Your task to perform on an android device: toggle location history Image 0: 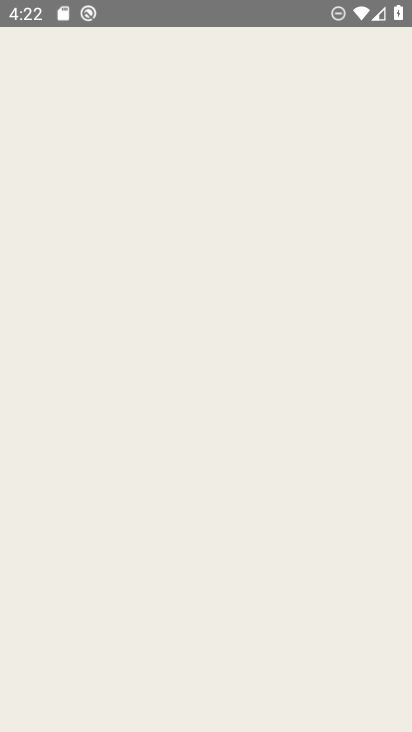
Step 0: click (55, 371)
Your task to perform on an android device: toggle location history Image 1: 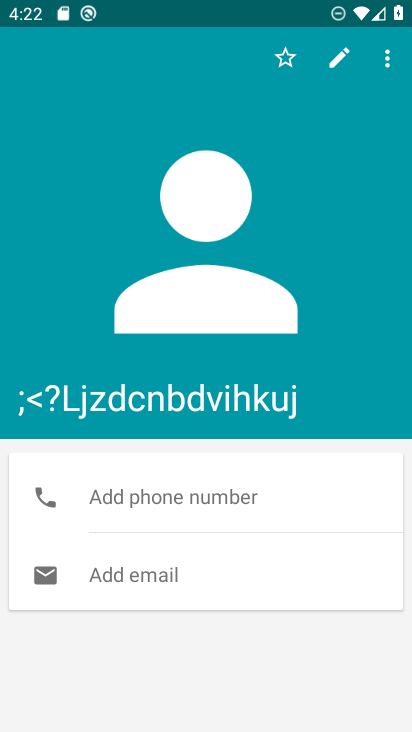
Step 1: press back button
Your task to perform on an android device: toggle location history Image 2: 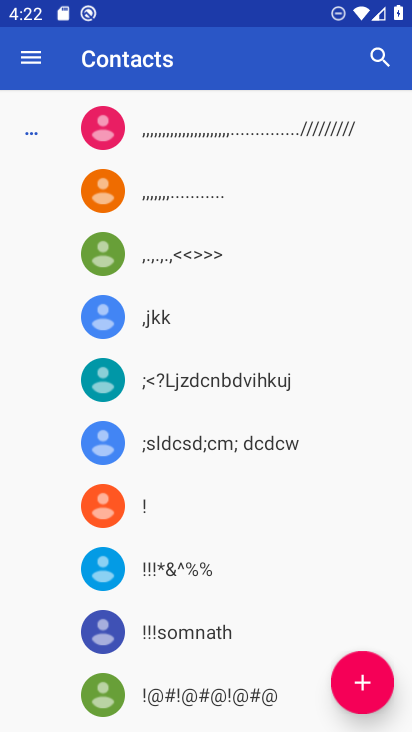
Step 2: press back button
Your task to perform on an android device: toggle location history Image 3: 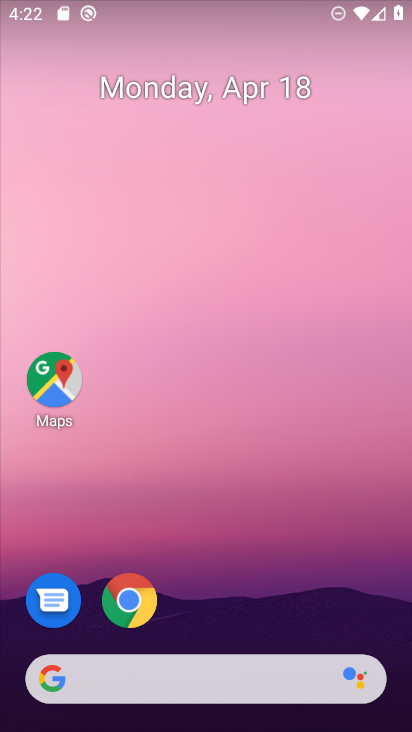
Step 3: drag from (183, 402) to (206, 132)
Your task to perform on an android device: toggle location history Image 4: 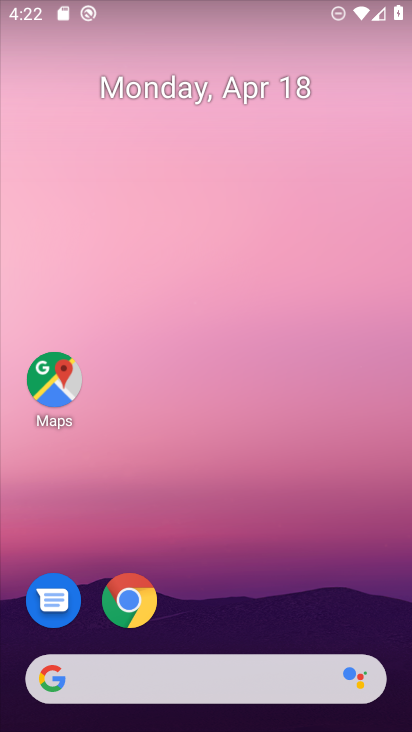
Step 4: drag from (195, 649) to (198, 166)
Your task to perform on an android device: toggle location history Image 5: 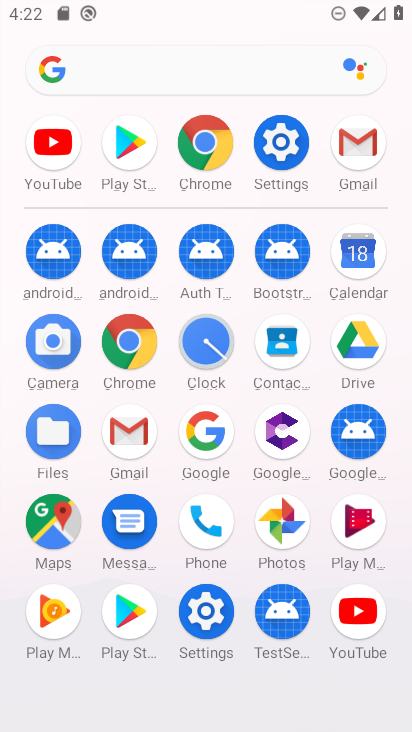
Step 5: click (283, 162)
Your task to perform on an android device: toggle location history Image 6: 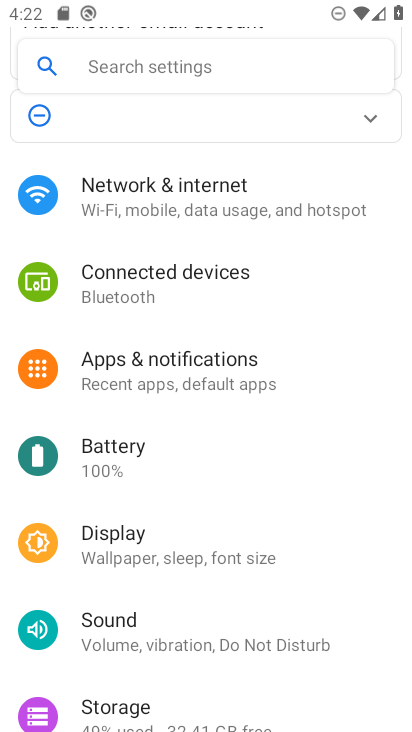
Step 6: click (196, 68)
Your task to perform on an android device: toggle location history Image 7: 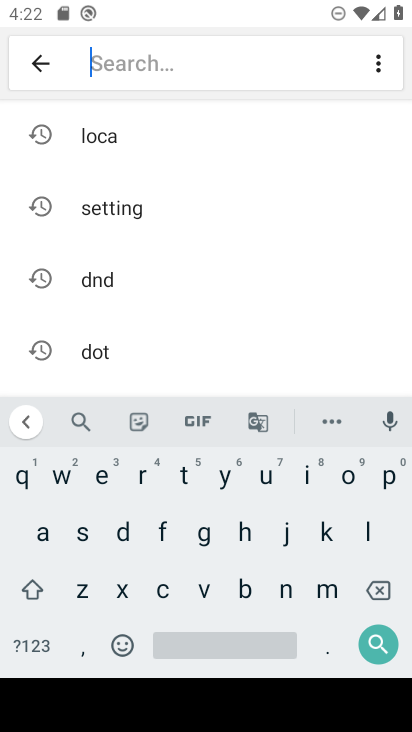
Step 7: click (364, 533)
Your task to perform on an android device: toggle location history Image 8: 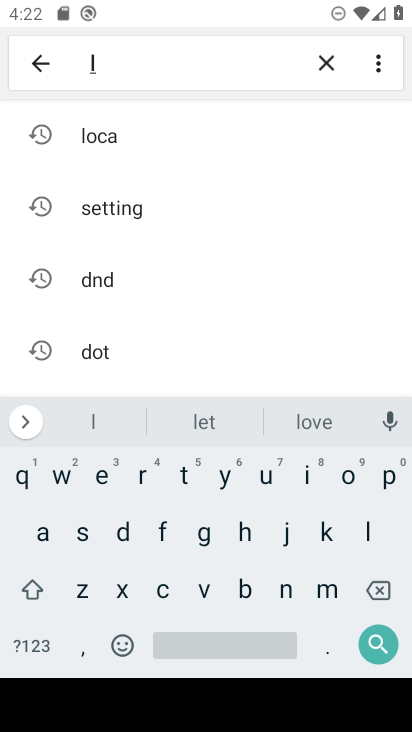
Step 8: click (344, 485)
Your task to perform on an android device: toggle location history Image 9: 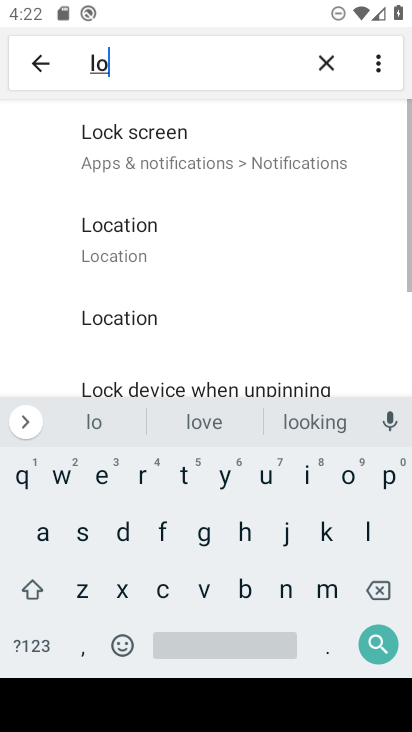
Step 9: click (166, 590)
Your task to perform on an android device: toggle location history Image 10: 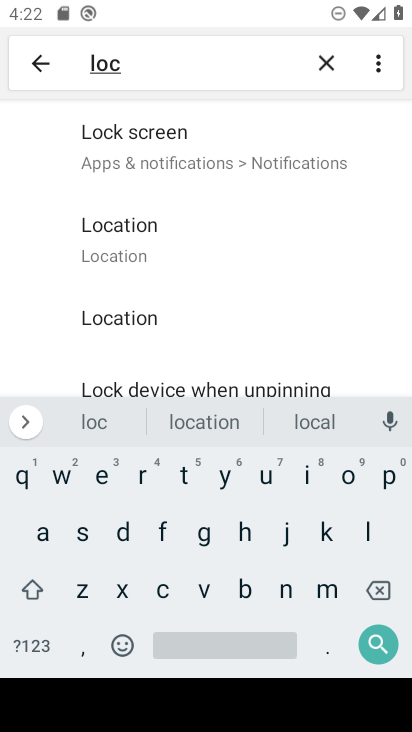
Step 10: click (139, 240)
Your task to perform on an android device: toggle location history Image 11: 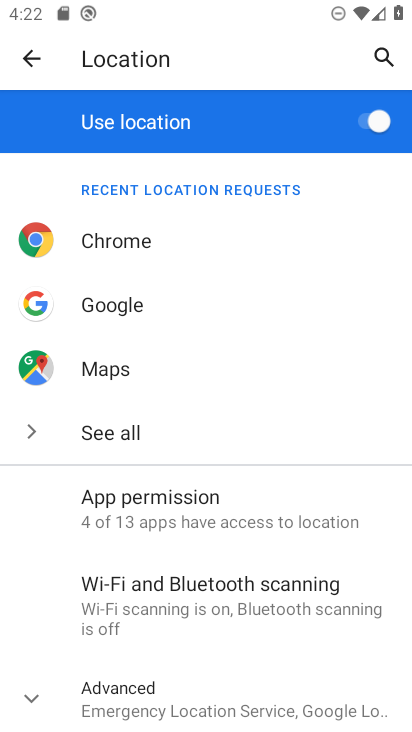
Step 11: click (116, 447)
Your task to perform on an android device: toggle location history Image 12: 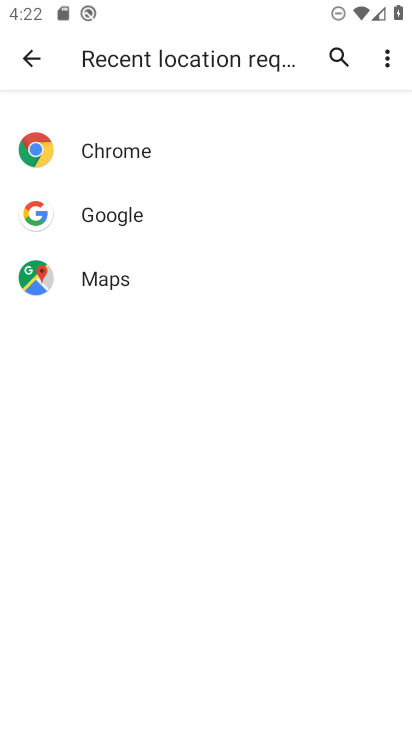
Step 12: click (29, 64)
Your task to perform on an android device: toggle location history Image 13: 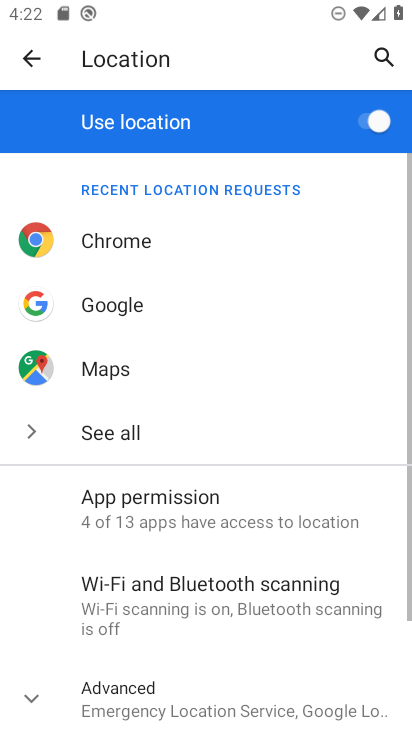
Step 13: drag from (198, 406) to (163, 79)
Your task to perform on an android device: toggle location history Image 14: 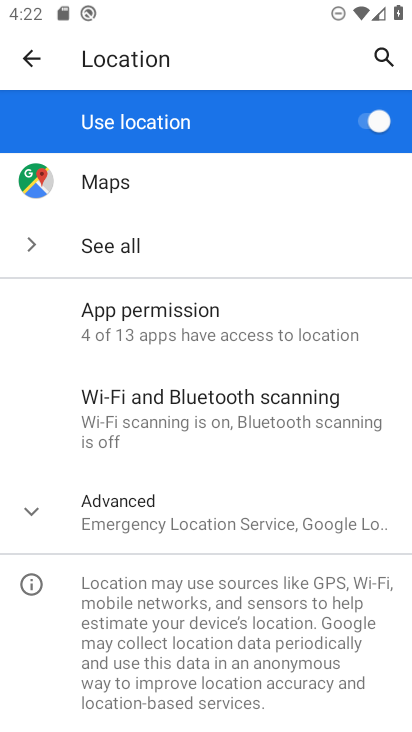
Step 14: click (146, 512)
Your task to perform on an android device: toggle location history Image 15: 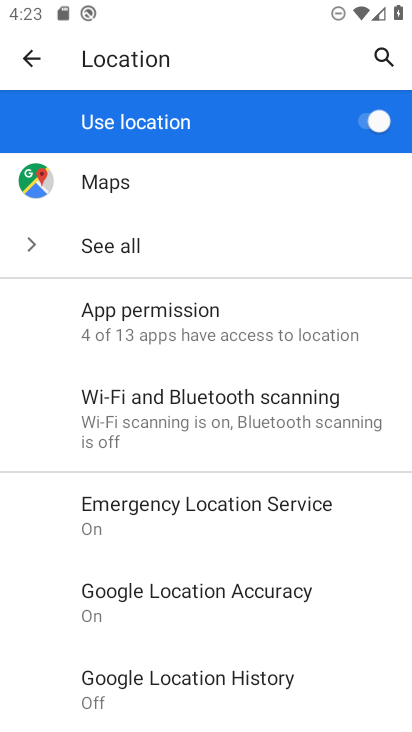
Step 15: click (156, 668)
Your task to perform on an android device: toggle location history Image 16: 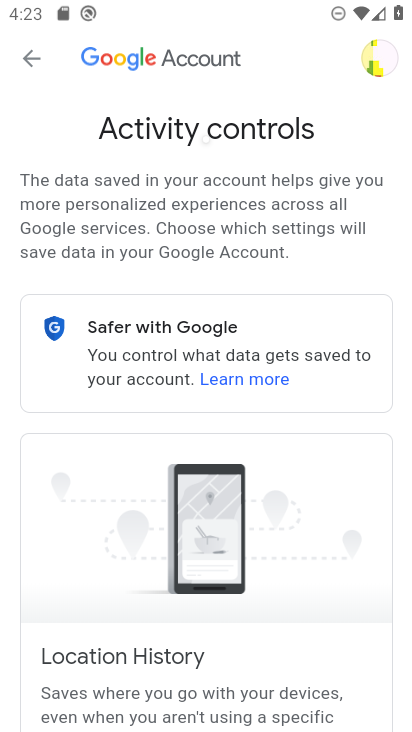
Step 16: task complete